Your task to perform on an android device: check storage Image 0: 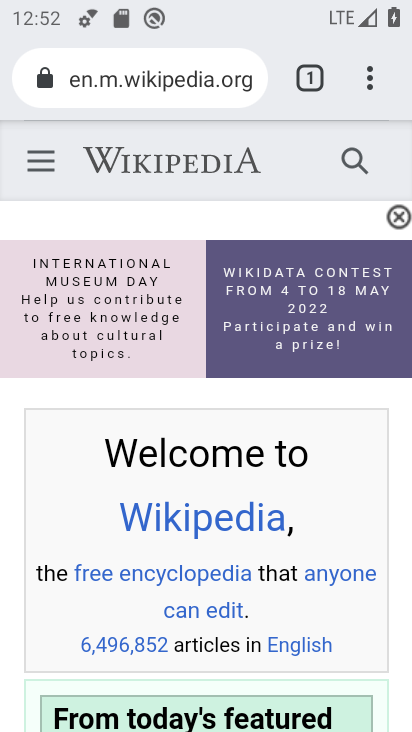
Step 0: press home button
Your task to perform on an android device: check storage Image 1: 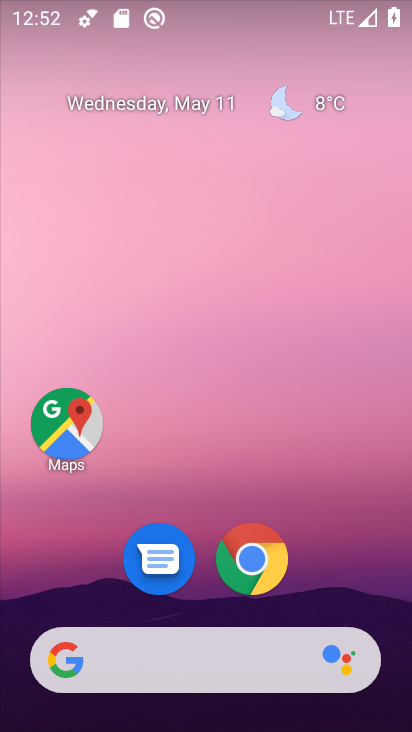
Step 1: drag from (171, 719) to (180, 215)
Your task to perform on an android device: check storage Image 2: 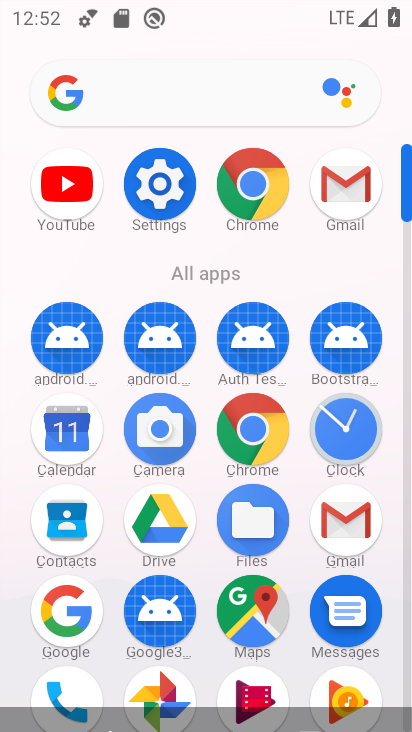
Step 2: click (159, 187)
Your task to perform on an android device: check storage Image 3: 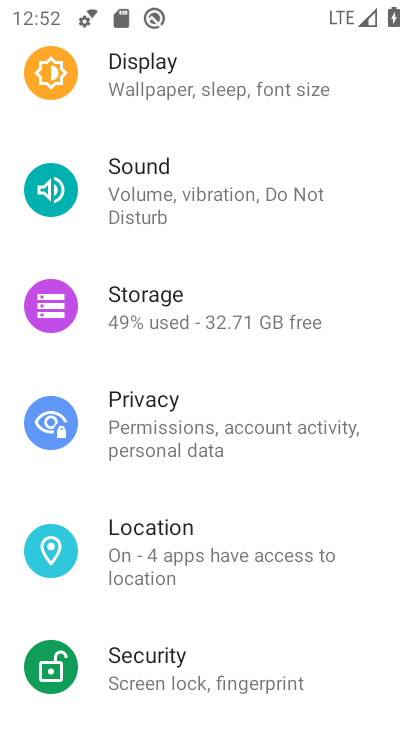
Step 3: click (126, 313)
Your task to perform on an android device: check storage Image 4: 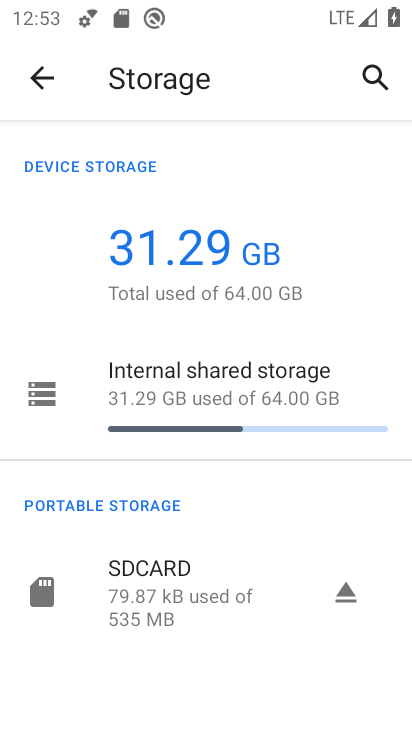
Step 4: task complete